Your task to perform on an android device: Search for seafood restaurants on Google Maps Image 0: 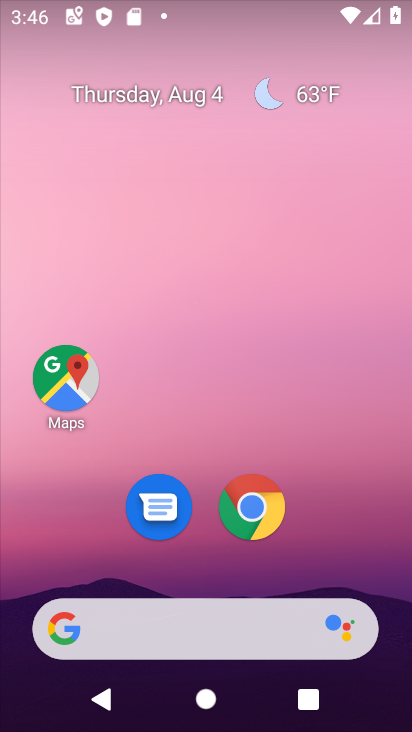
Step 0: drag from (17, 613) to (113, 100)
Your task to perform on an android device: Search for seafood restaurants on Google Maps Image 1: 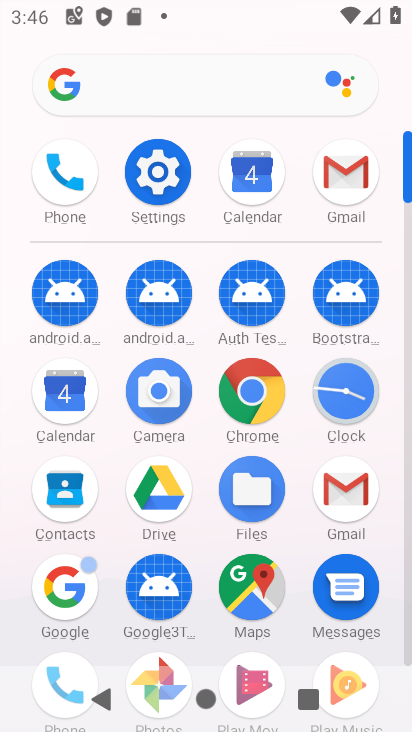
Step 1: click (247, 604)
Your task to perform on an android device: Search for seafood restaurants on Google Maps Image 2: 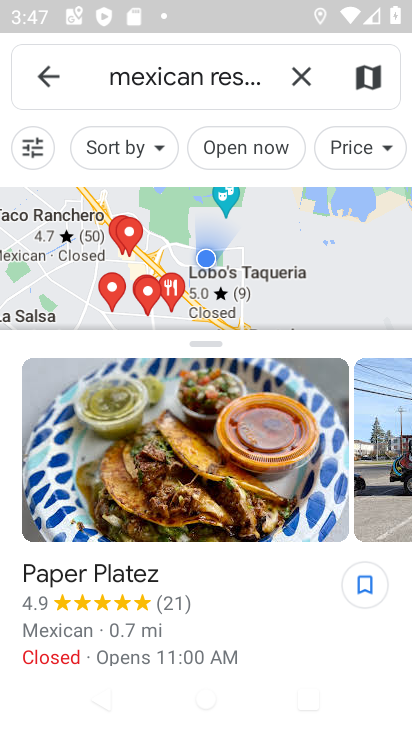
Step 2: click (300, 73)
Your task to perform on an android device: Search for seafood restaurants on Google Maps Image 3: 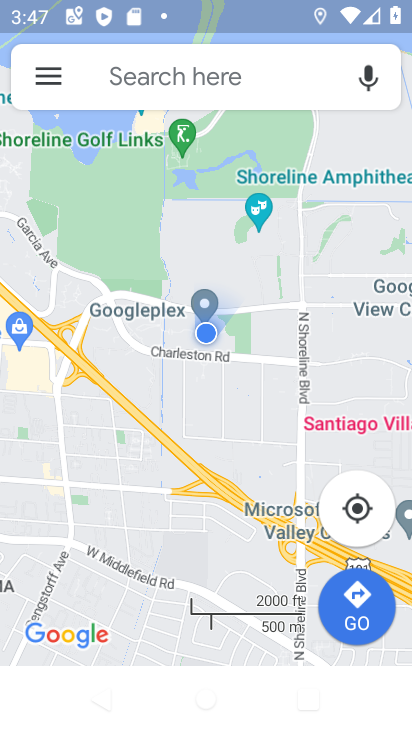
Step 3: click (147, 55)
Your task to perform on an android device: Search for seafood restaurants on Google Maps Image 4: 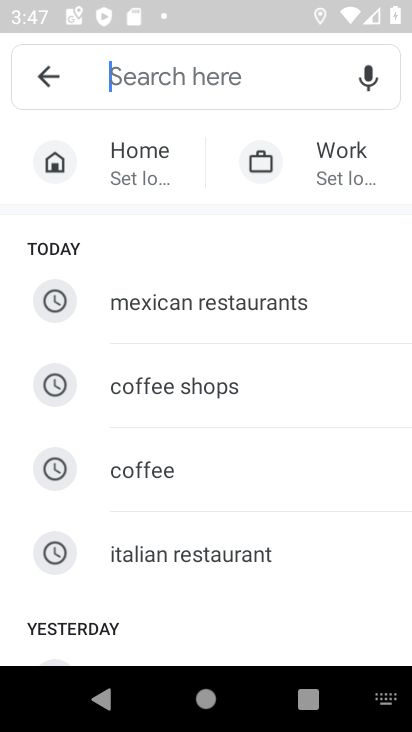
Step 4: type "seafood restaurants"
Your task to perform on an android device: Search for seafood restaurants on Google Maps Image 5: 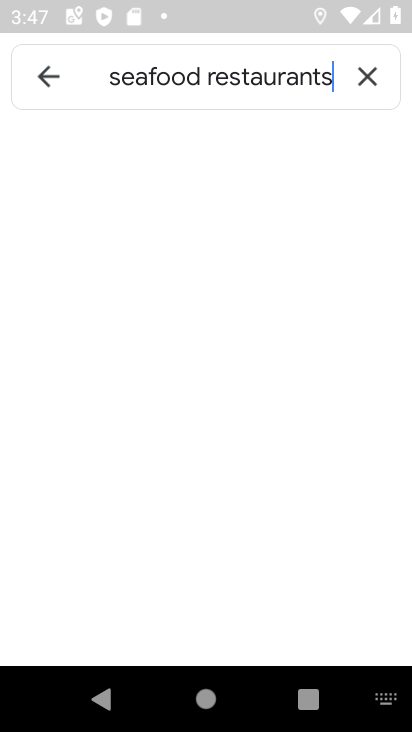
Step 5: type ""
Your task to perform on an android device: Search for seafood restaurants on Google Maps Image 6: 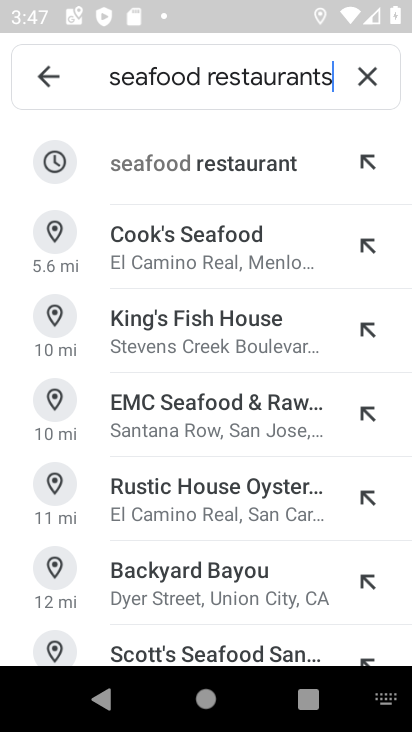
Step 6: click (203, 162)
Your task to perform on an android device: Search for seafood restaurants on Google Maps Image 7: 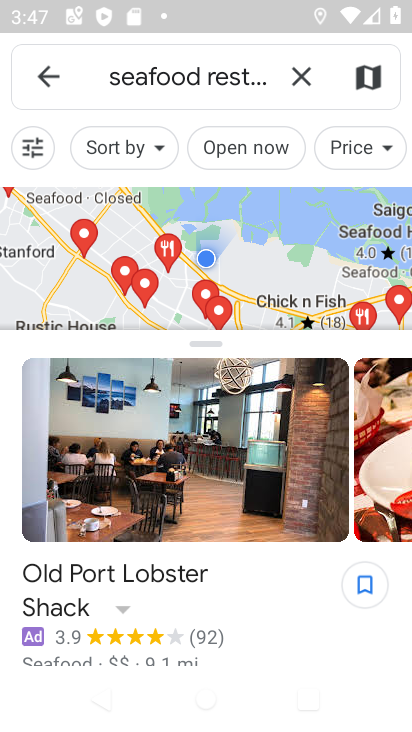
Step 7: task complete